Your task to perform on an android device: make emails show in primary in the gmail app Image 0: 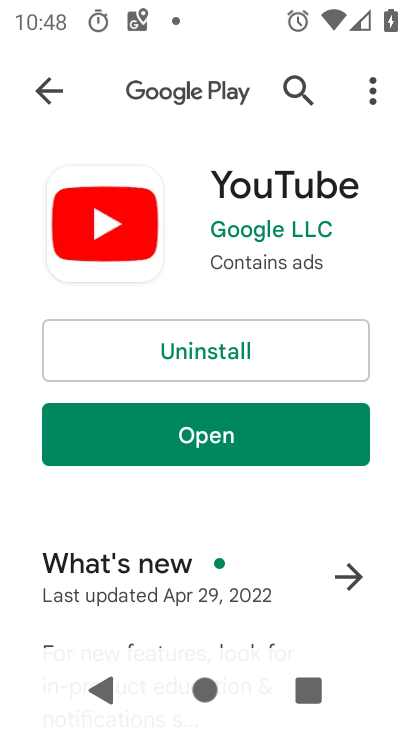
Step 0: click (352, 546)
Your task to perform on an android device: make emails show in primary in the gmail app Image 1: 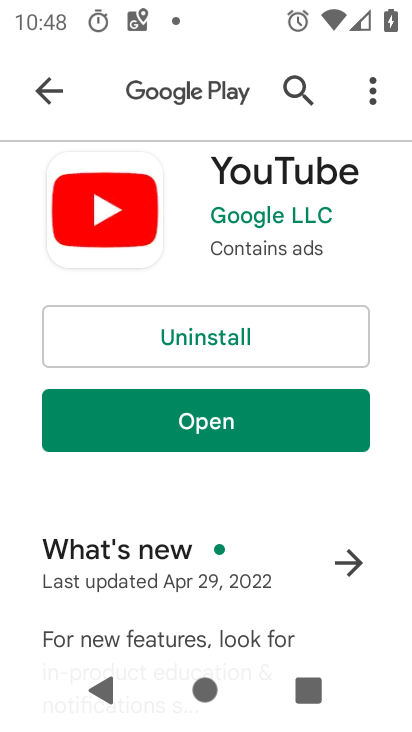
Step 1: press home button
Your task to perform on an android device: make emails show in primary in the gmail app Image 2: 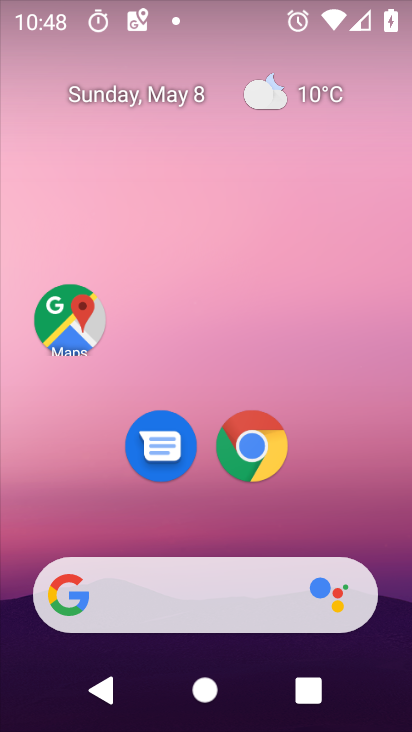
Step 2: drag from (343, 527) to (340, 5)
Your task to perform on an android device: make emails show in primary in the gmail app Image 3: 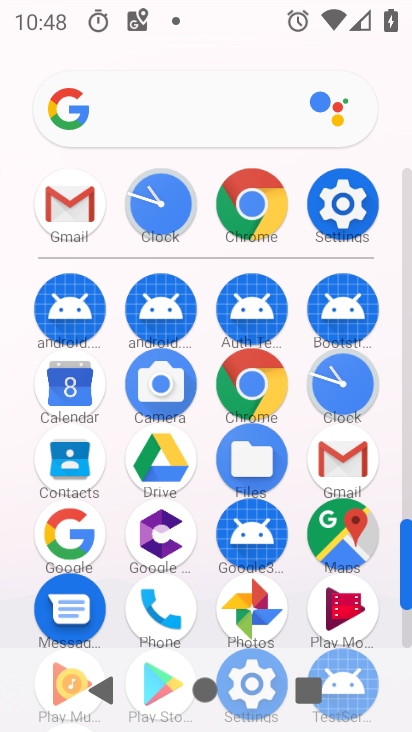
Step 3: click (72, 205)
Your task to perform on an android device: make emails show in primary in the gmail app Image 4: 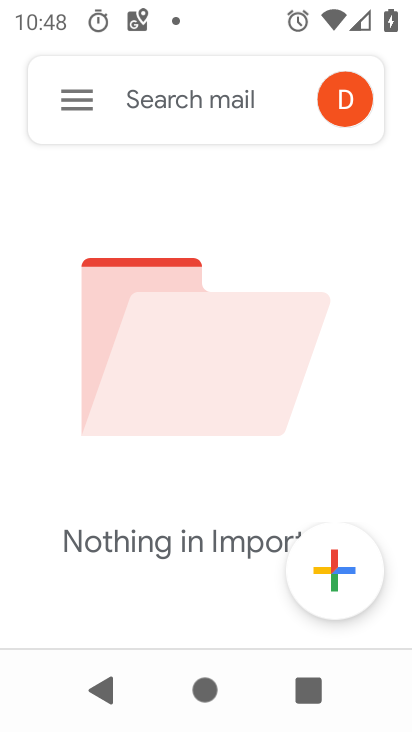
Step 4: click (80, 109)
Your task to perform on an android device: make emails show in primary in the gmail app Image 5: 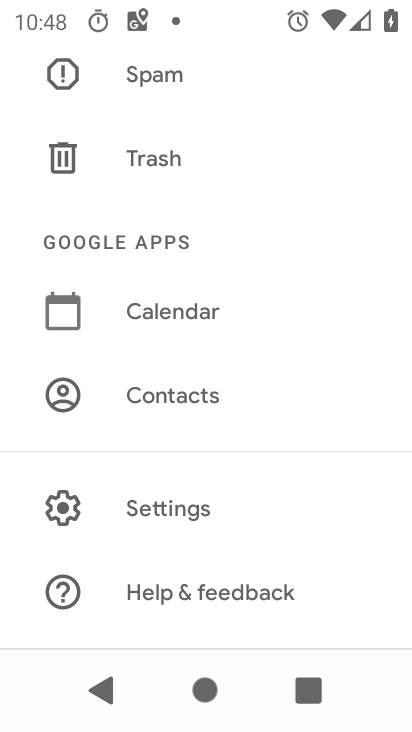
Step 5: click (176, 509)
Your task to perform on an android device: make emails show in primary in the gmail app Image 6: 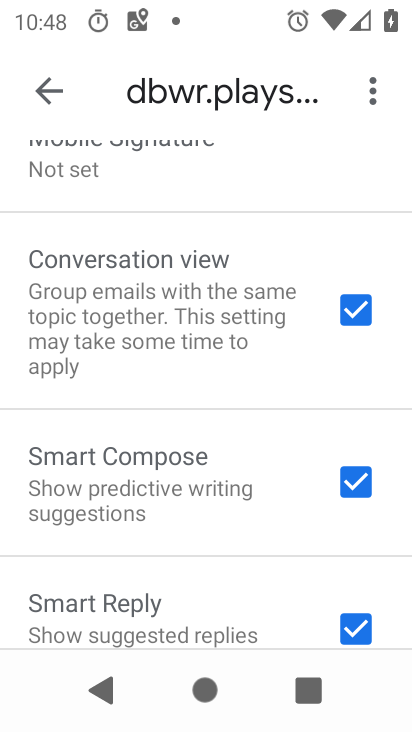
Step 6: drag from (176, 238) to (166, 578)
Your task to perform on an android device: make emails show in primary in the gmail app Image 7: 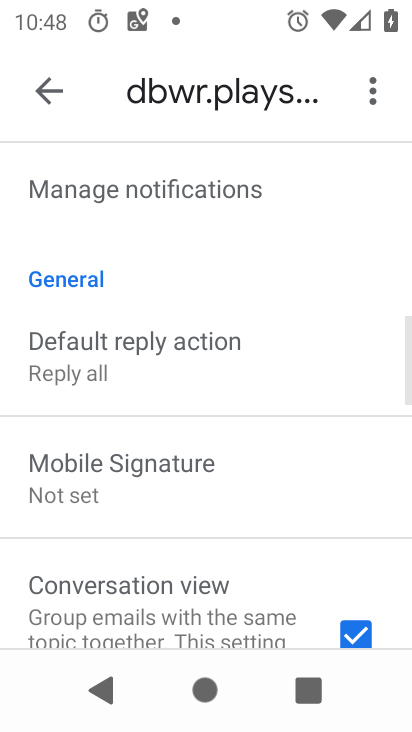
Step 7: drag from (179, 296) to (190, 575)
Your task to perform on an android device: make emails show in primary in the gmail app Image 8: 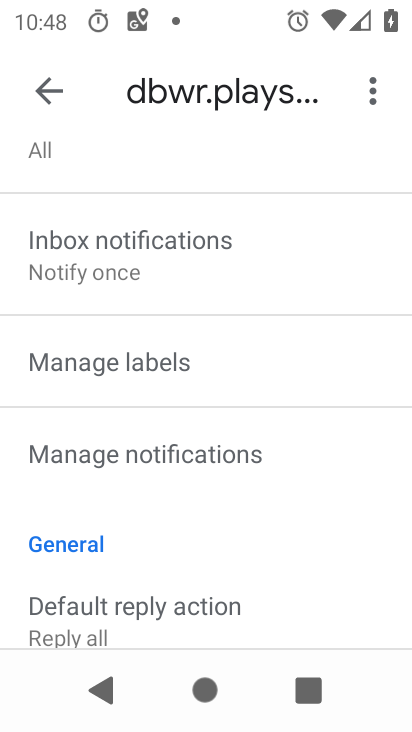
Step 8: drag from (171, 340) to (177, 534)
Your task to perform on an android device: make emails show in primary in the gmail app Image 9: 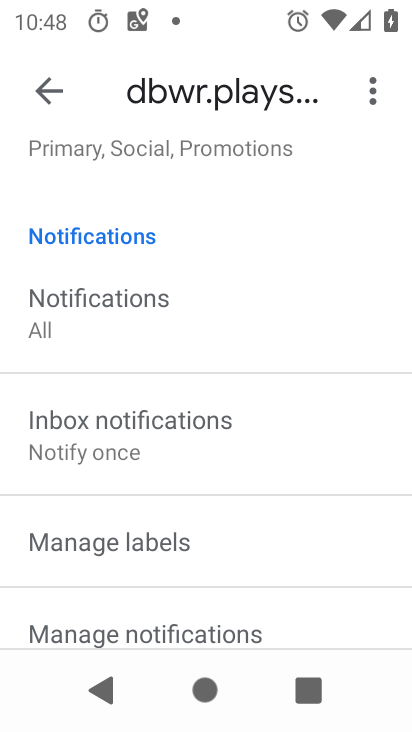
Step 9: drag from (181, 339) to (181, 535)
Your task to perform on an android device: make emails show in primary in the gmail app Image 10: 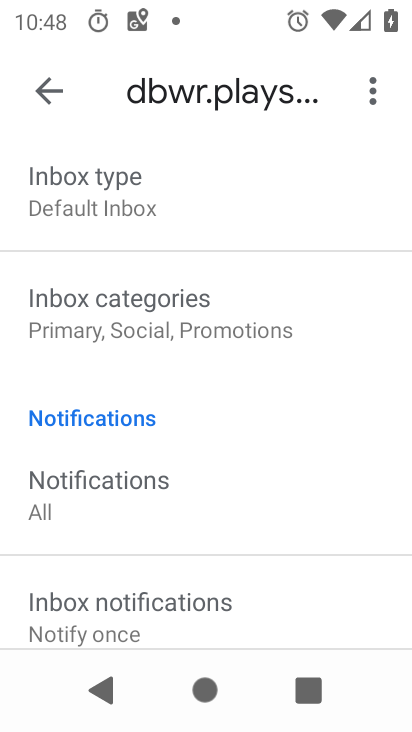
Step 10: click (93, 337)
Your task to perform on an android device: make emails show in primary in the gmail app Image 11: 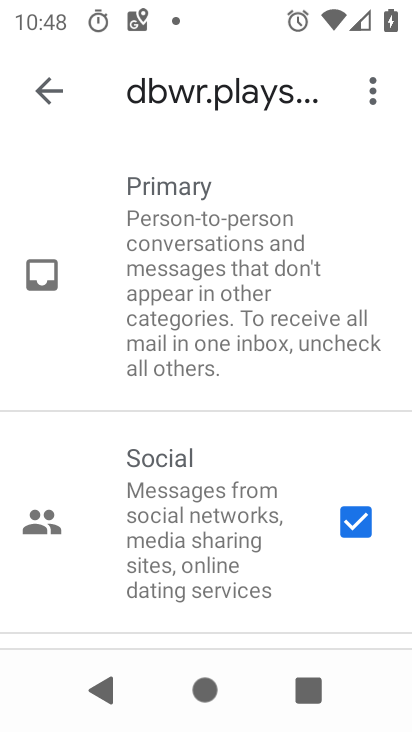
Step 11: click (349, 521)
Your task to perform on an android device: make emails show in primary in the gmail app Image 12: 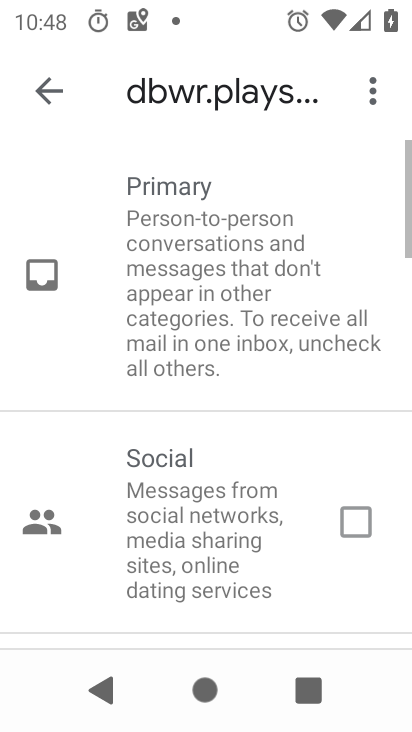
Step 12: drag from (221, 525) to (227, 204)
Your task to perform on an android device: make emails show in primary in the gmail app Image 13: 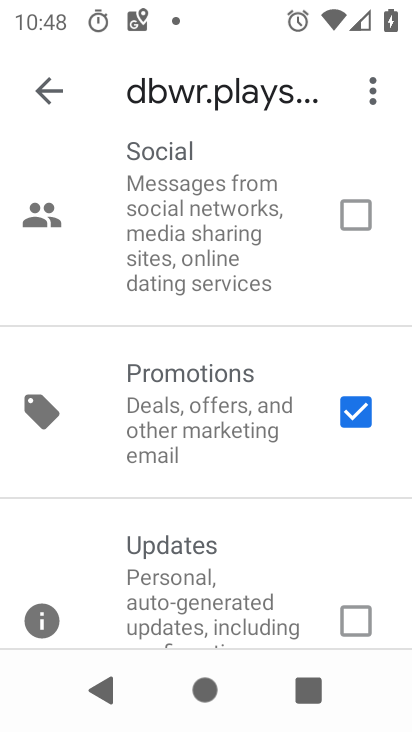
Step 13: click (363, 425)
Your task to perform on an android device: make emails show in primary in the gmail app Image 14: 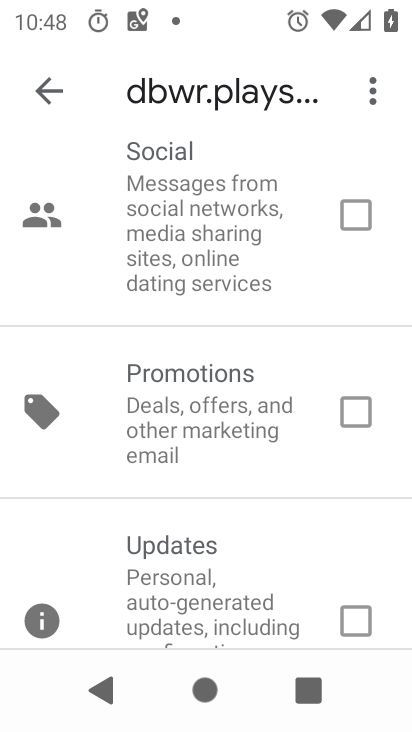
Step 14: drag from (228, 600) to (245, 282)
Your task to perform on an android device: make emails show in primary in the gmail app Image 15: 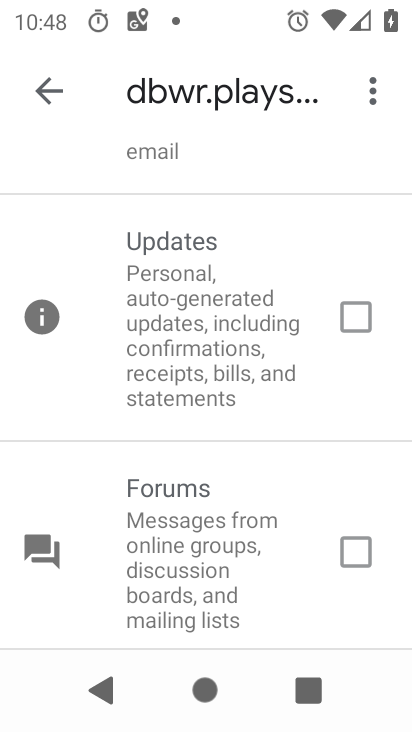
Step 15: drag from (217, 529) to (215, 277)
Your task to perform on an android device: make emails show in primary in the gmail app Image 16: 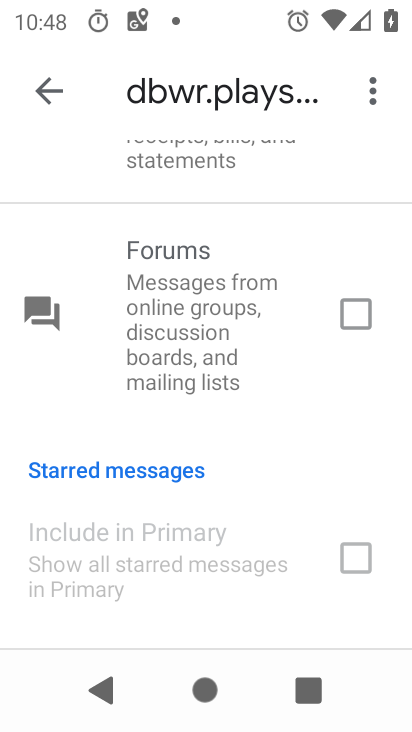
Step 16: drag from (198, 486) to (201, 232)
Your task to perform on an android device: make emails show in primary in the gmail app Image 17: 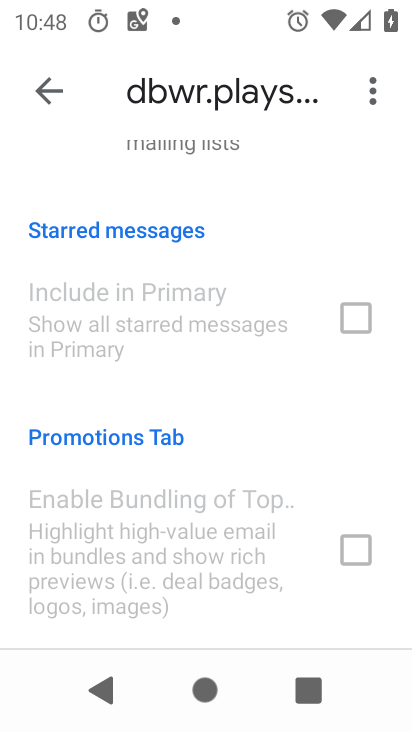
Step 17: drag from (221, 355) to (213, 648)
Your task to perform on an android device: make emails show in primary in the gmail app Image 18: 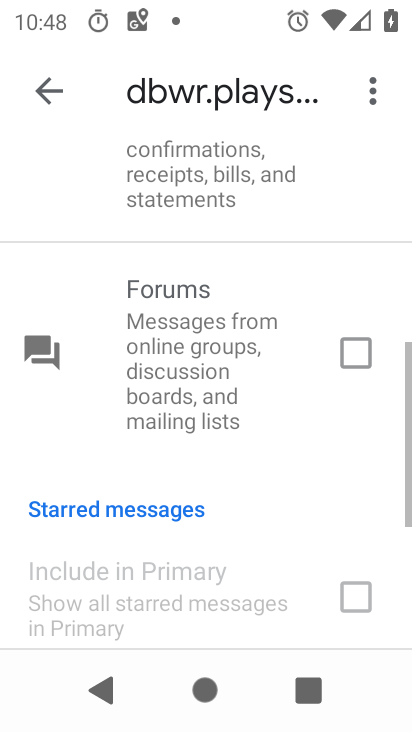
Step 18: drag from (215, 244) to (235, 634)
Your task to perform on an android device: make emails show in primary in the gmail app Image 19: 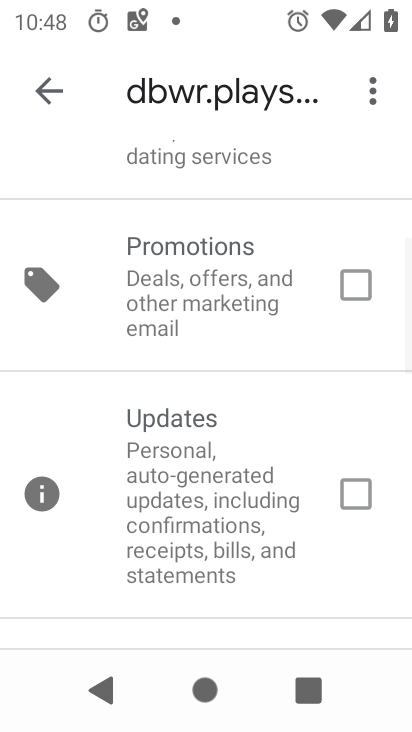
Step 19: drag from (211, 291) to (200, 582)
Your task to perform on an android device: make emails show in primary in the gmail app Image 20: 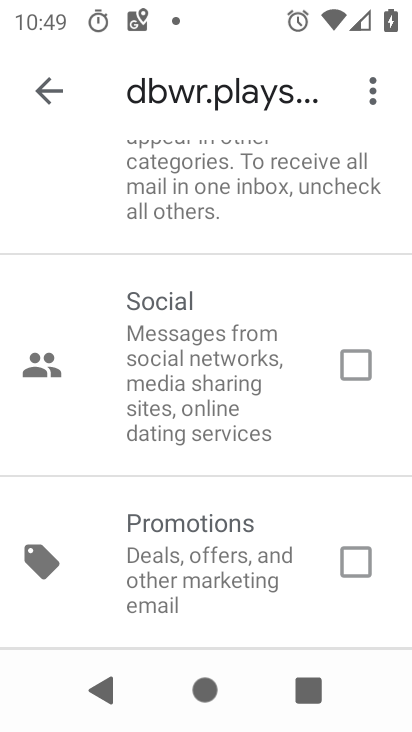
Step 20: drag from (240, 249) to (240, 566)
Your task to perform on an android device: make emails show in primary in the gmail app Image 21: 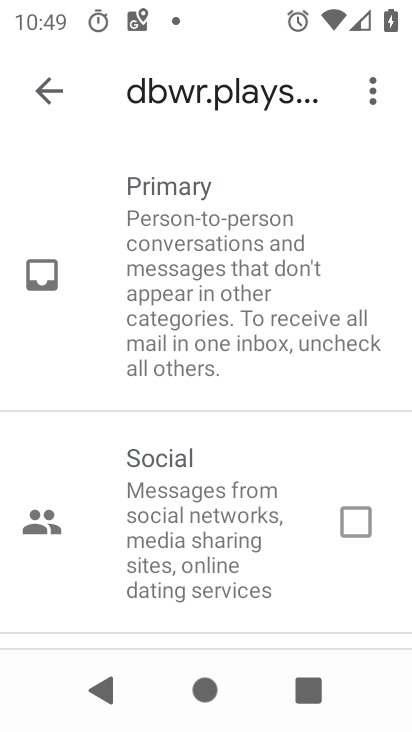
Step 21: click (60, 95)
Your task to perform on an android device: make emails show in primary in the gmail app Image 22: 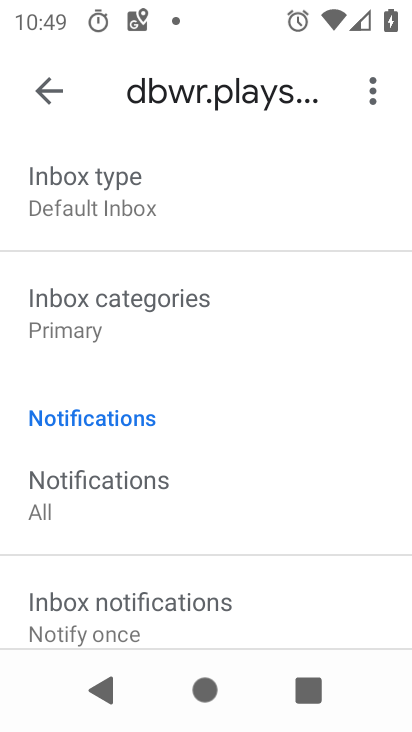
Step 22: task complete